Your task to perform on an android device: Go to Maps Image 0: 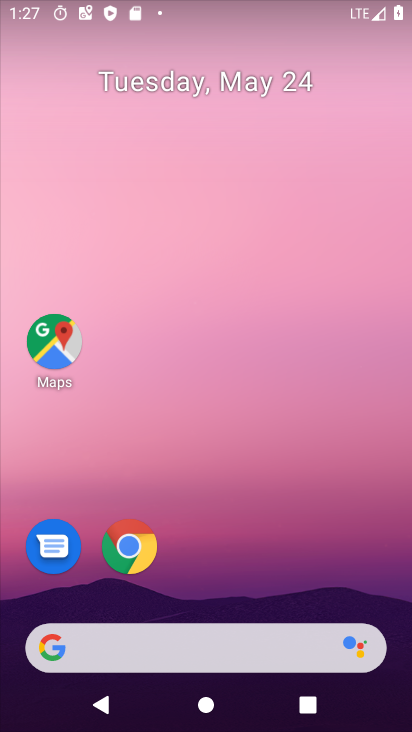
Step 0: drag from (179, 601) to (246, 11)
Your task to perform on an android device: Go to Maps Image 1: 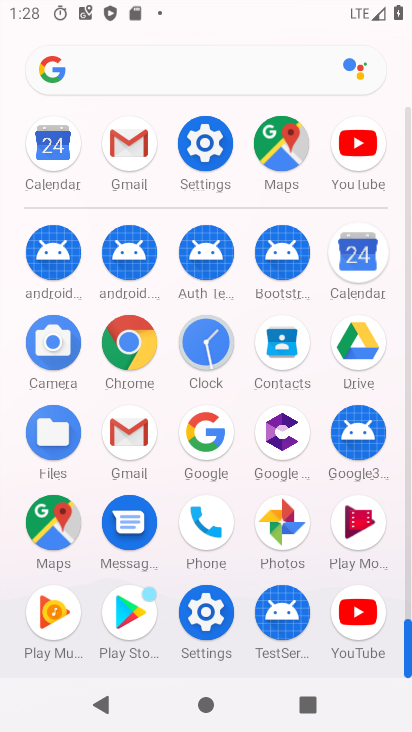
Step 1: click (49, 506)
Your task to perform on an android device: Go to Maps Image 2: 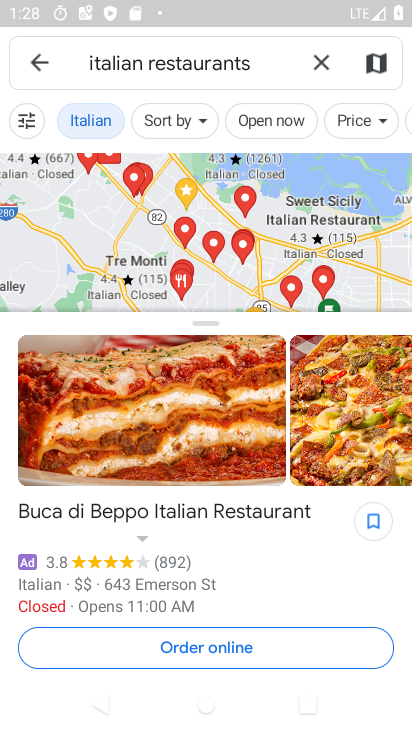
Step 2: task complete